Your task to perform on an android device: What's the weather today? Image 0: 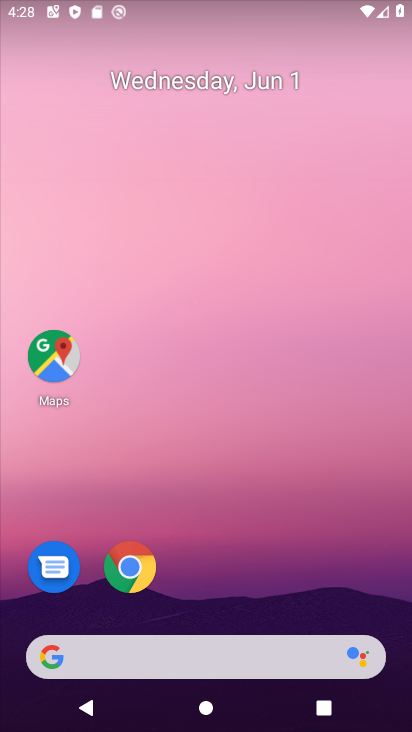
Step 0: click (256, 650)
Your task to perform on an android device: What's the weather today? Image 1: 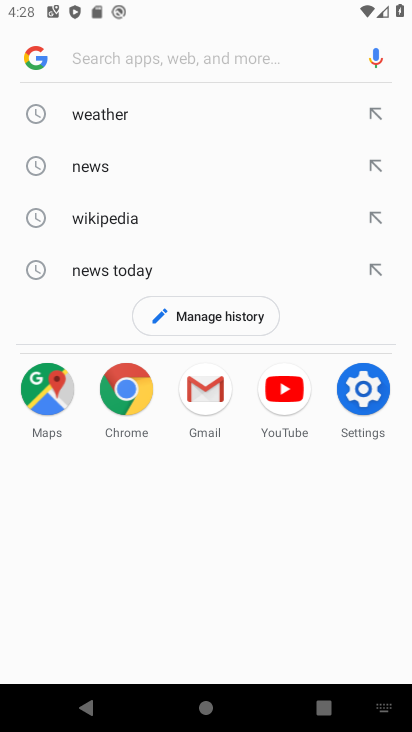
Step 1: click (141, 119)
Your task to perform on an android device: What's the weather today? Image 2: 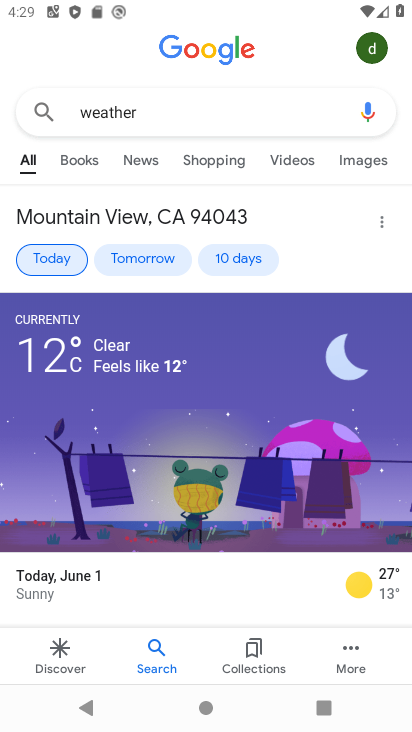
Step 2: task complete